Your task to perform on an android device: Show me productivity apps on the Play Store Image 0: 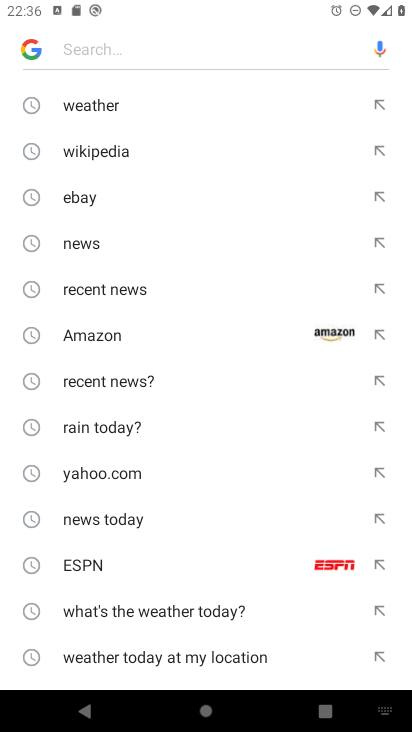
Step 0: press home button
Your task to perform on an android device: Show me productivity apps on the Play Store Image 1: 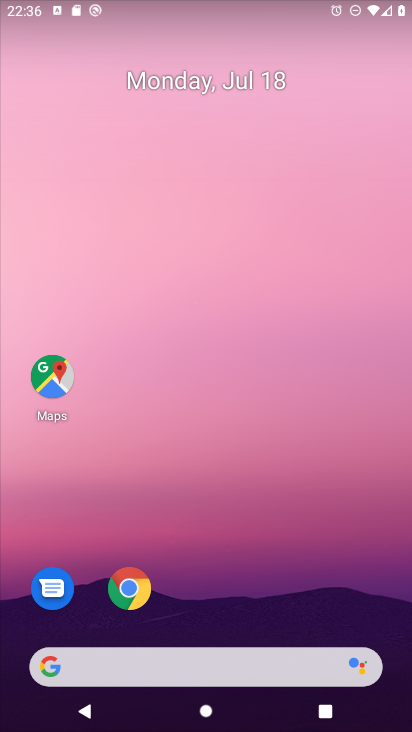
Step 1: drag from (327, 631) to (270, 53)
Your task to perform on an android device: Show me productivity apps on the Play Store Image 2: 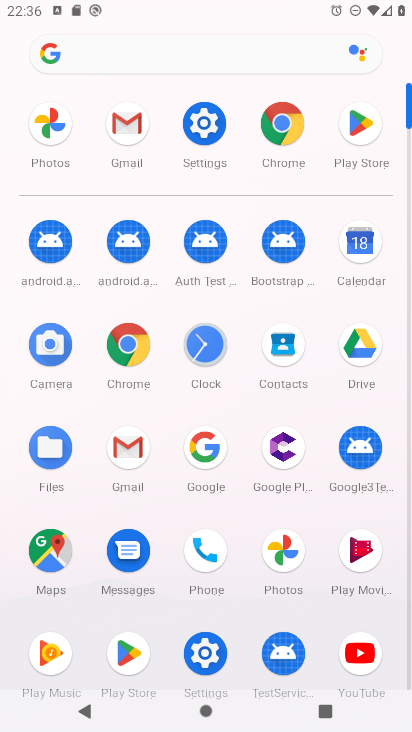
Step 2: click (132, 651)
Your task to perform on an android device: Show me productivity apps on the Play Store Image 3: 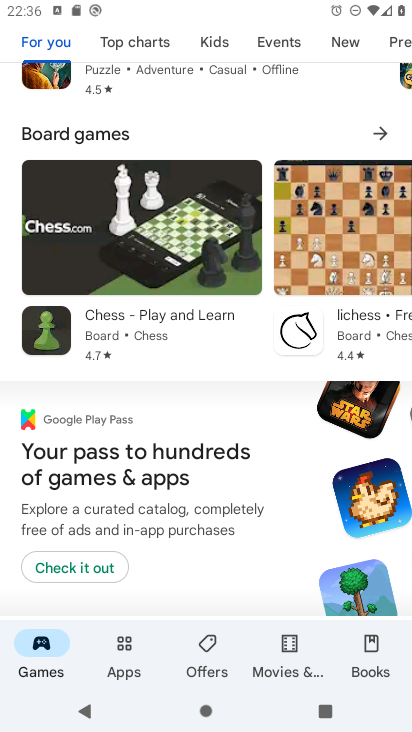
Step 3: click (131, 653)
Your task to perform on an android device: Show me productivity apps on the Play Store Image 4: 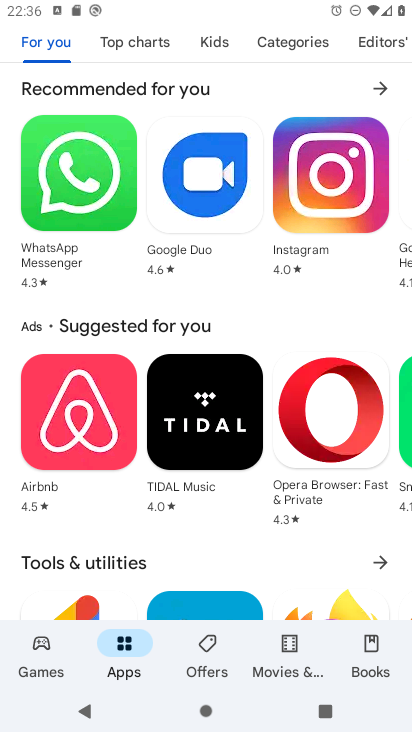
Step 4: click (296, 44)
Your task to perform on an android device: Show me productivity apps on the Play Store Image 5: 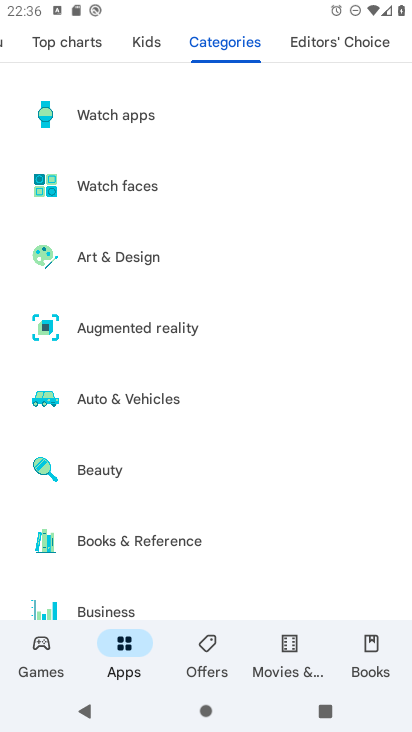
Step 5: drag from (217, 541) to (202, 162)
Your task to perform on an android device: Show me productivity apps on the Play Store Image 6: 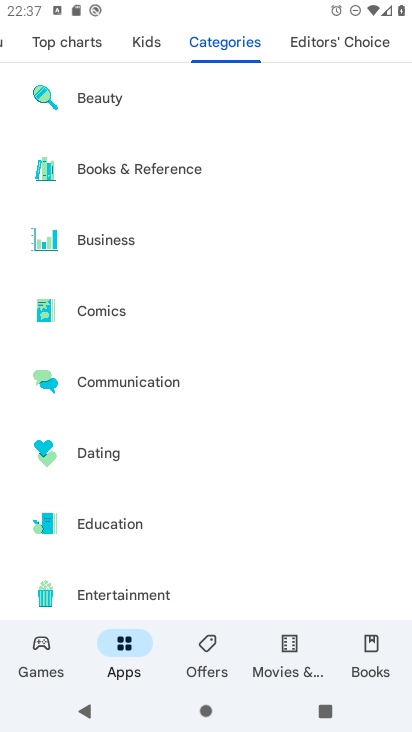
Step 6: drag from (199, 585) to (189, 130)
Your task to perform on an android device: Show me productivity apps on the Play Store Image 7: 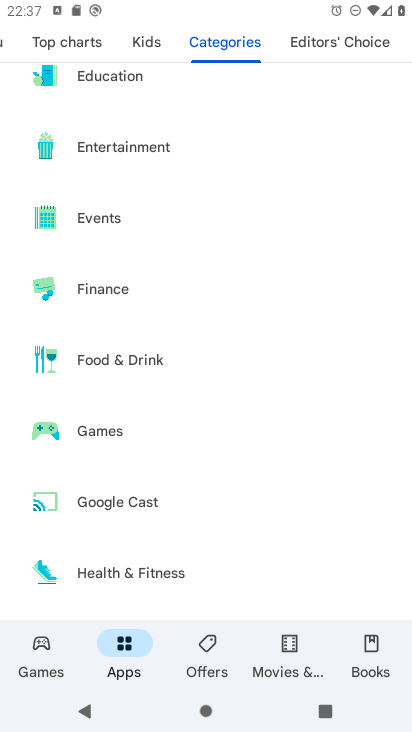
Step 7: drag from (211, 558) to (194, 106)
Your task to perform on an android device: Show me productivity apps on the Play Store Image 8: 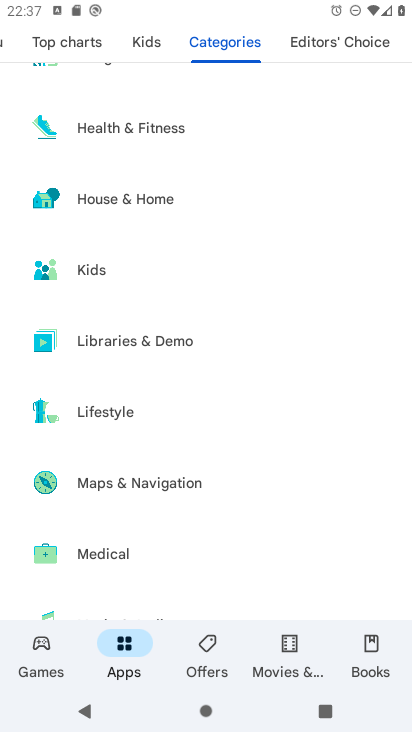
Step 8: drag from (229, 578) to (254, 109)
Your task to perform on an android device: Show me productivity apps on the Play Store Image 9: 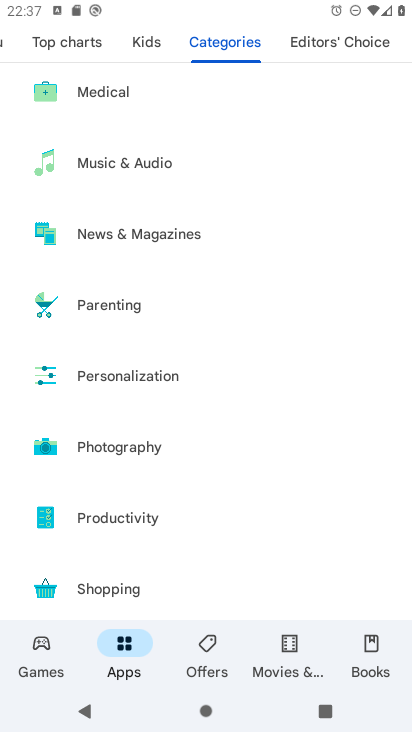
Step 9: click (96, 514)
Your task to perform on an android device: Show me productivity apps on the Play Store Image 10: 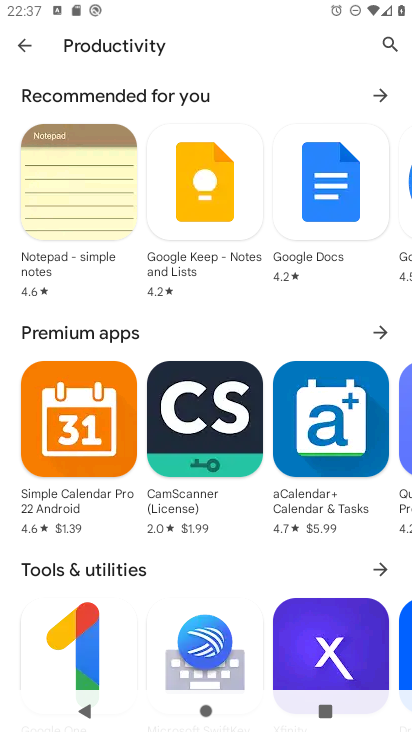
Step 10: drag from (291, 555) to (239, 113)
Your task to perform on an android device: Show me productivity apps on the Play Store Image 11: 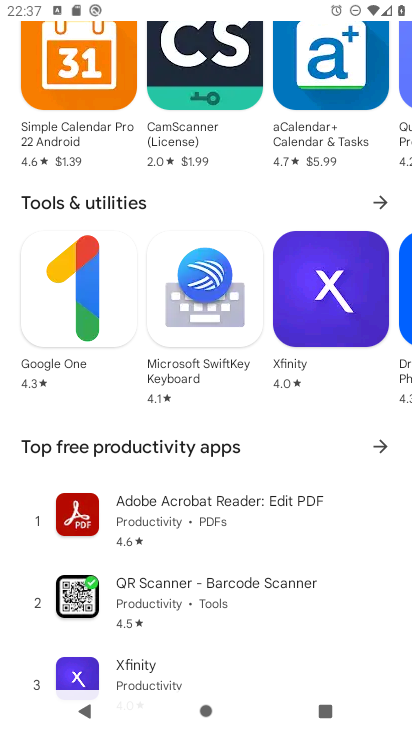
Step 11: drag from (239, 457) to (233, 1)
Your task to perform on an android device: Show me productivity apps on the Play Store Image 12: 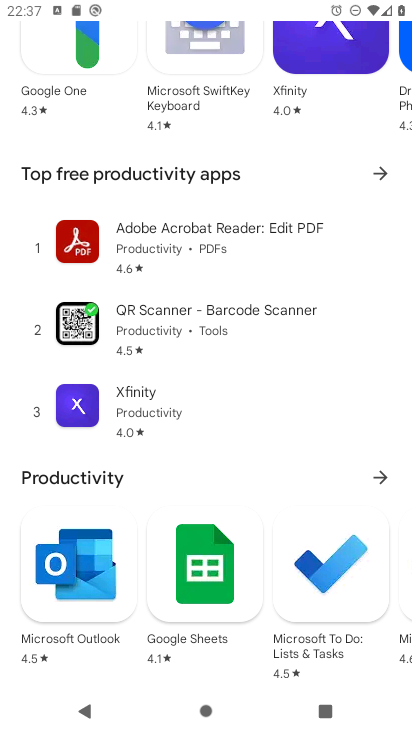
Step 12: click (377, 473)
Your task to perform on an android device: Show me productivity apps on the Play Store Image 13: 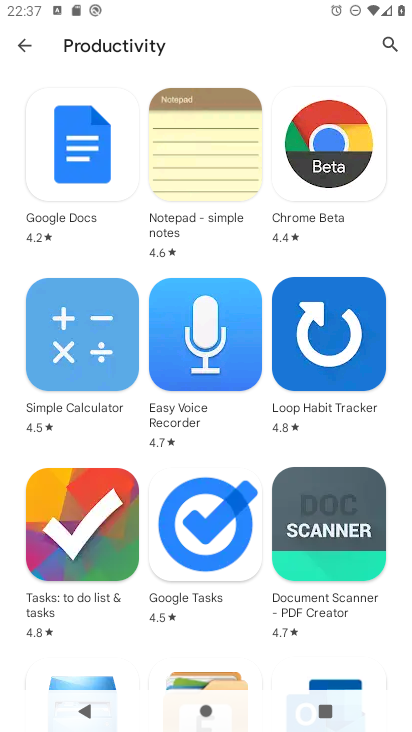
Step 13: task complete